Your task to perform on an android device: toggle translation in the chrome app Image 0: 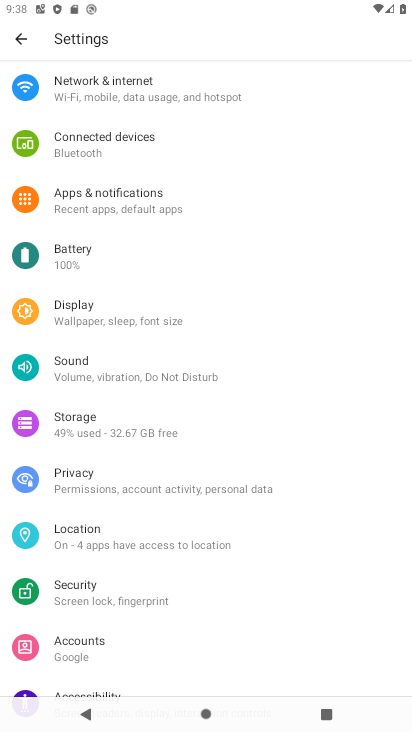
Step 0: task complete